Your task to perform on an android device: Open ESPN.com Image 0: 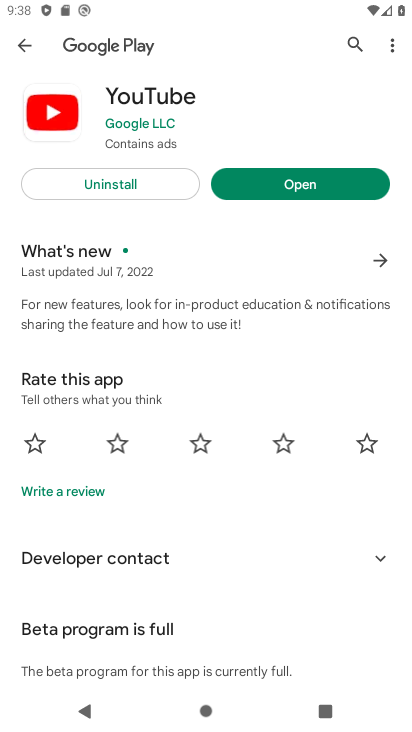
Step 0: press home button
Your task to perform on an android device: Open ESPN.com Image 1: 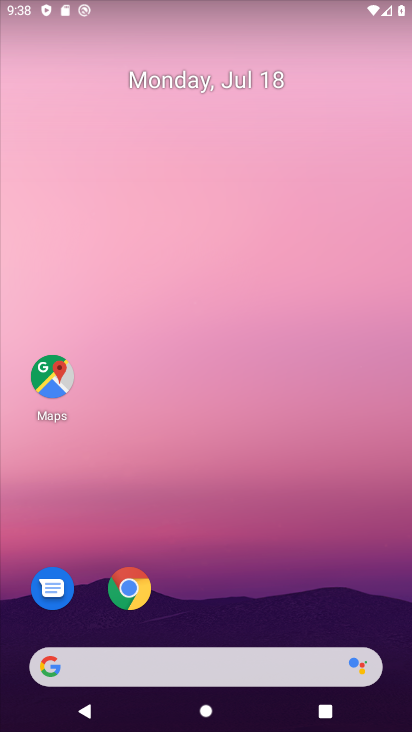
Step 1: click (142, 603)
Your task to perform on an android device: Open ESPN.com Image 2: 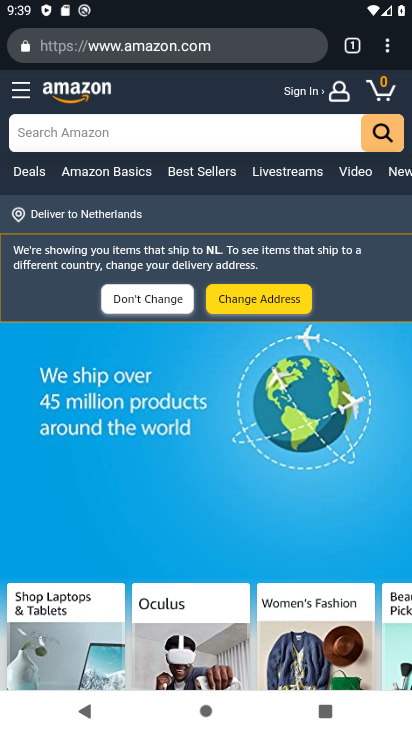
Step 2: click (250, 42)
Your task to perform on an android device: Open ESPN.com Image 3: 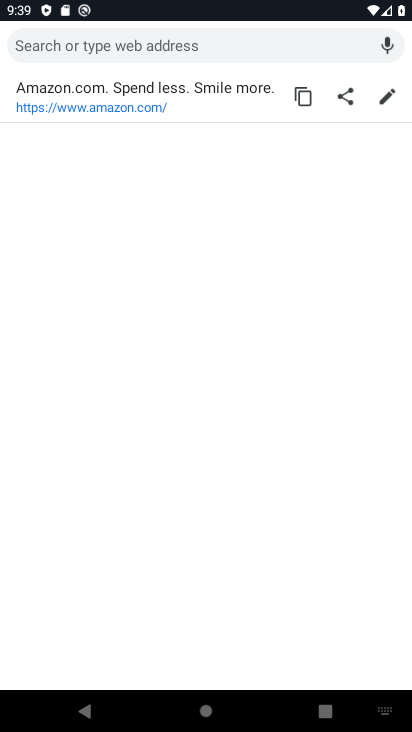
Step 3: type "espn.com"
Your task to perform on an android device: Open ESPN.com Image 4: 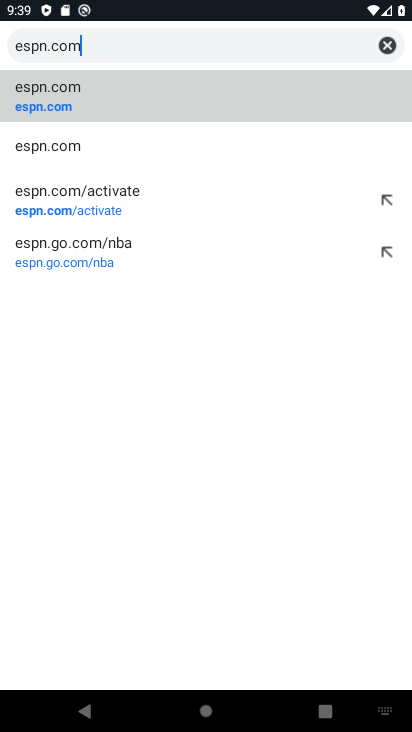
Step 4: click (177, 81)
Your task to perform on an android device: Open ESPN.com Image 5: 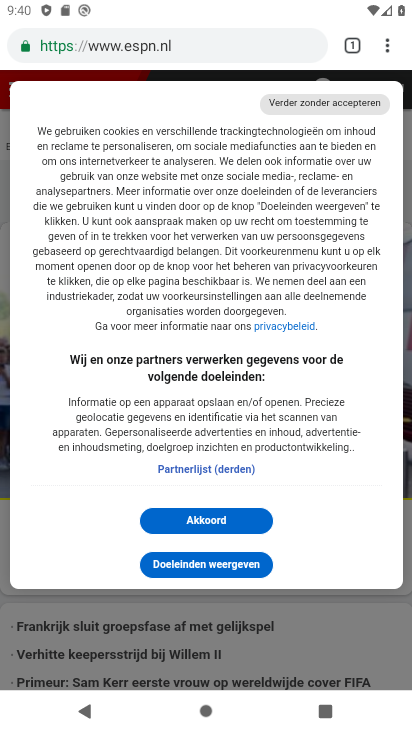
Step 5: task complete